Your task to perform on an android device: change alarm snooze length Image 0: 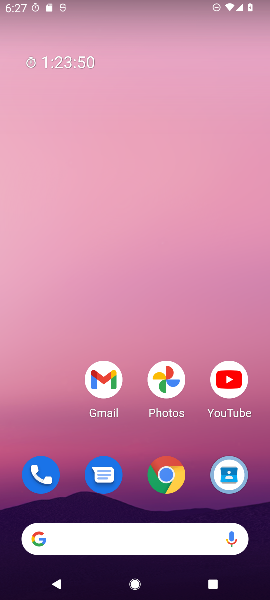
Step 0: press home button
Your task to perform on an android device: change alarm snooze length Image 1: 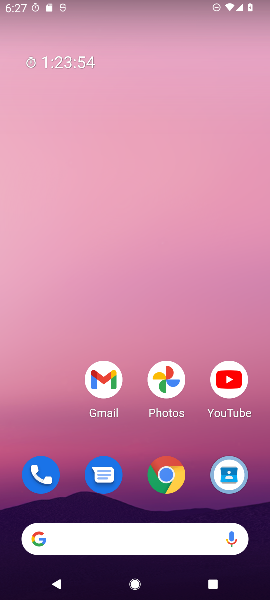
Step 1: drag from (64, 429) to (52, 170)
Your task to perform on an android device: change alarm snooze length Image 2: 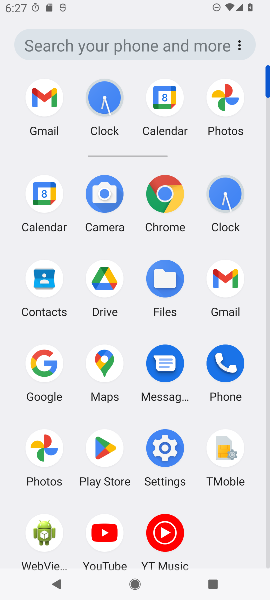
Step 2: click (227, 190)
Your task to perform on an android device: change alarm snooze length Image 3: 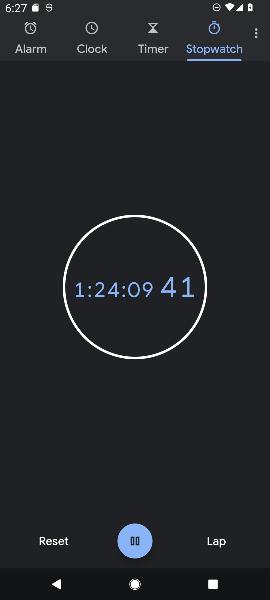
Step 3: click (255, 35)
Your task to perform on an android device: change alarm snooze length Image 4: 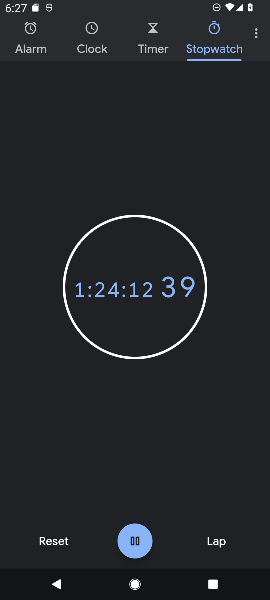
Step 4: click (255, 35)
Your task to perform on an android device: change alarm snooze length Image 5: 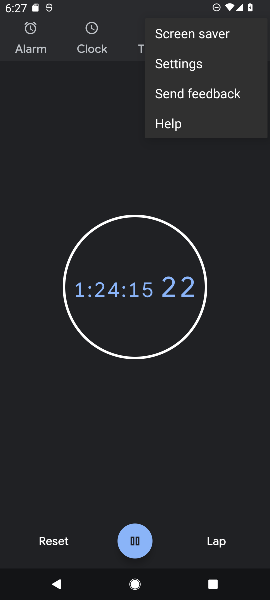
Step 5: click (205, 61)
Your task to perform on an android device: change alarm snooze length Image 6: 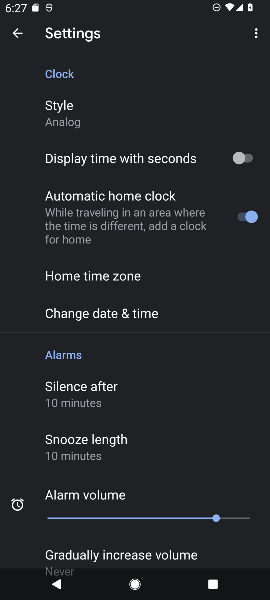
Step 6: drag from (198, 375) to (200, 295)
Your task to perform on an android device: change alarm snooze length Image 7: 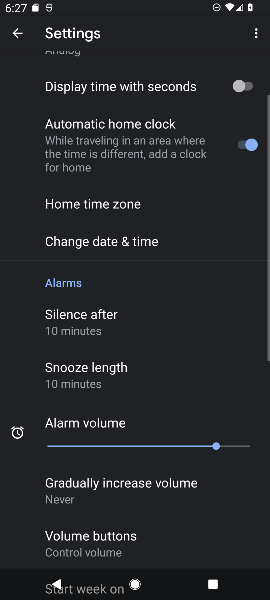
Step 7: drag from (201, 394) to (205, 291)
Your task to perform on an android device: change alarm snooze length Image 8: 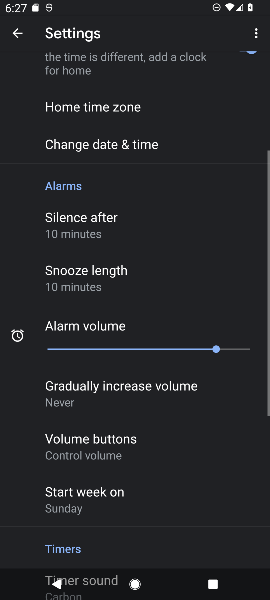
Step 8: drag from (203, 432) to (206, 337)
Your task to perform on an android device: change alarm snooze length Image 9: 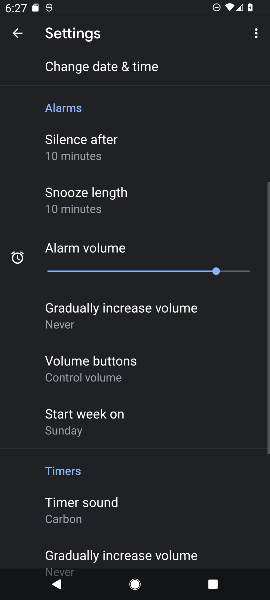
Step 9: drag from (208, 448) to (210, 342)
Your task to perform on an android device: change alarm snooze length Image 10: 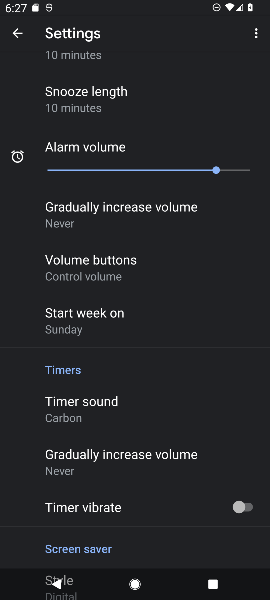
Step 10: drag from (194, 458) to (196, 339)
Your task to perform on an android device: change alarm snooze length Image 11: 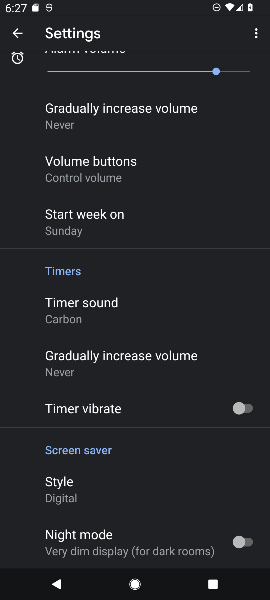
Step 11: drag from (190, 459) to (196, 355)
Your task to perform on an android device: change alarm snooze length Image 12: 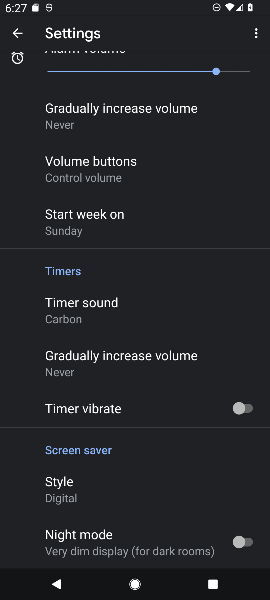
Step 12: drag from (192, 210) to (192, 303)
Your task to perform on an android device: change alarm snooze length Image 13: 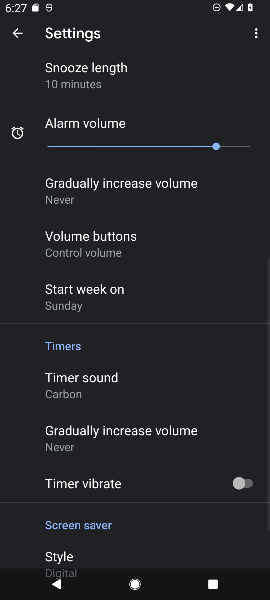
Step 13: drag from (211, 202) to (214, 292)
Your task to perform on an android device: change alarm snooze length Image 14: 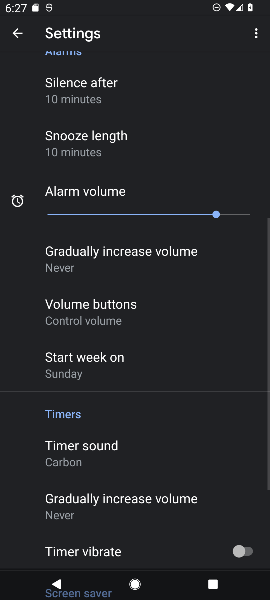
Step 14: drag from (243, 163) to (241, 251)
Your task to perform on an android device: change alarm snooze length Image 15: 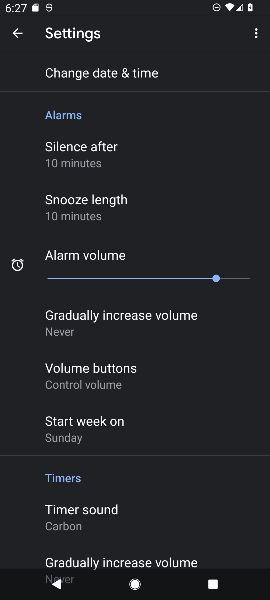
Step 15: drag from (241, 156) to (241, 261)
Your task to perform on an android device: change alarm snooze length Image 16: 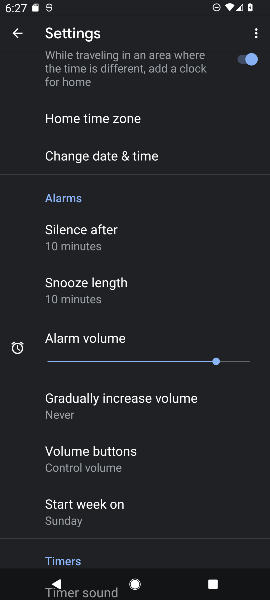
Step 16: drag from (228, 146) to (228, 279)
Your task to perform on an android device: change alarm snooze length Image 17: 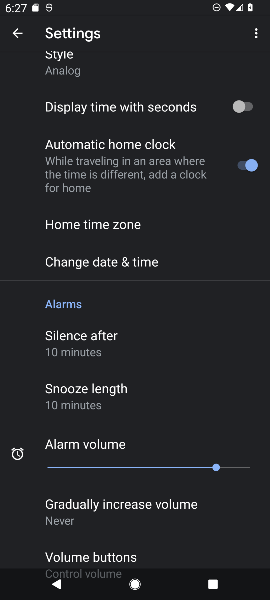
Step 17: drag from (214, 115) to (212, 267)
Your task to perform on an android device: change alarm snooze length Image 18: 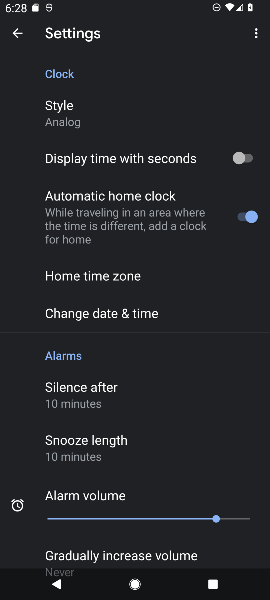
Step 18: click (134, 451)
Your task to perform on an android device: change alarm snooze length Image 19: 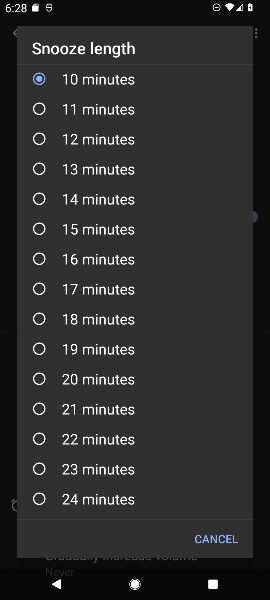
Step 19: click (120, 290)
Your task to perform on an android device: change alarm snooze length Image 20: 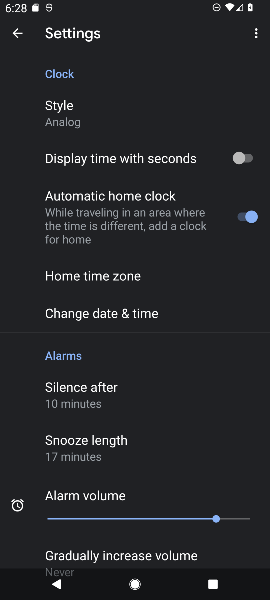
Step 20: task complete